Your task to perform on an android device: find snoozed emails in the gmail app Image 0: 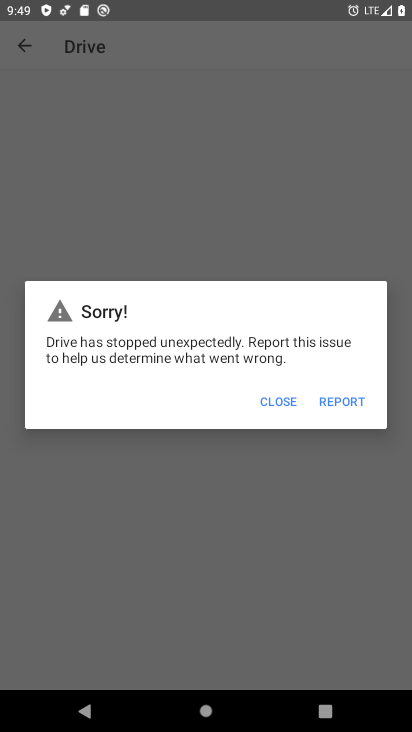
Step 0: press home button
Your task to perform on an android device: find snoozed emails in the gmail app Image 1: 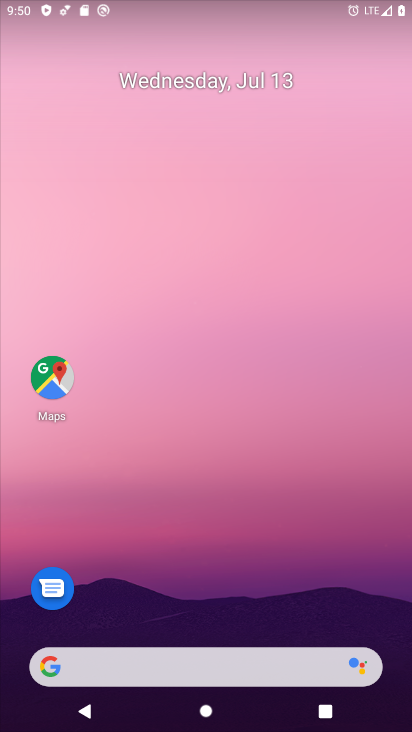
Step 1: drag from (166, 702) to (147, 4)
Your task to perform on an android device: find snoozed emails in the gmail app Image 2: 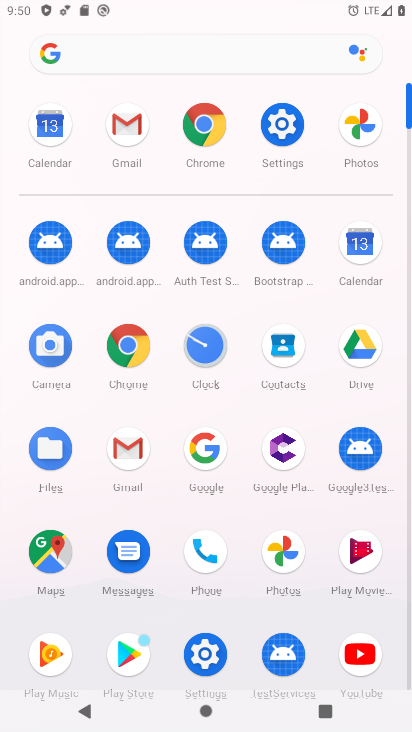
Step 2: click (116, 145)
Your task to perform on an android device: find snoozed emails in the gmail app Image 3: 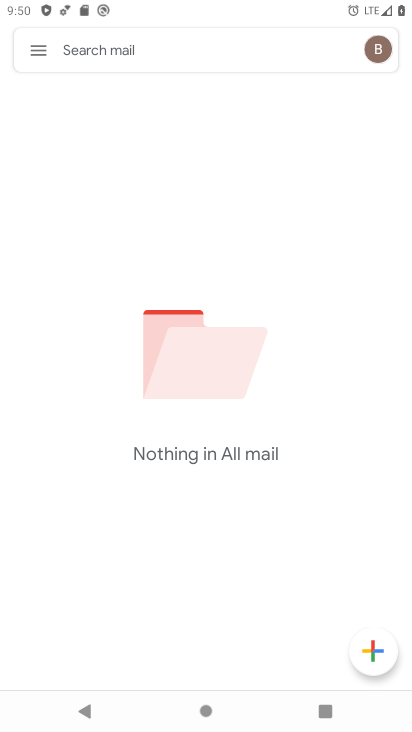
Step 3: click (45, 49)
Your task to perform on an android device: find snoozed emails in the gmail app Image 4: 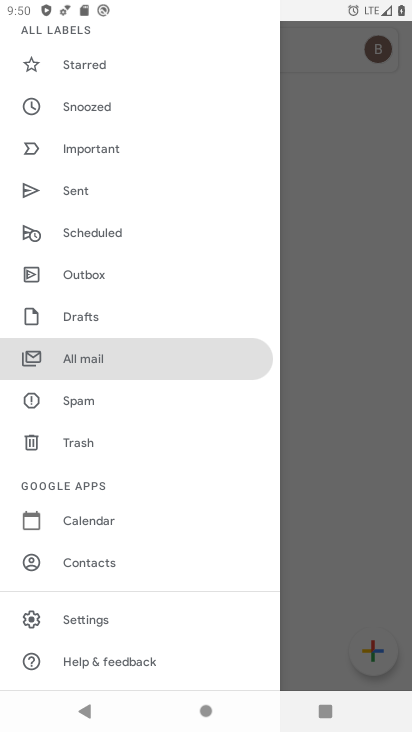
Step 4: click (116, 105)
Your task to perform on an android device: find snoozed emails in the gmail app Image 5: 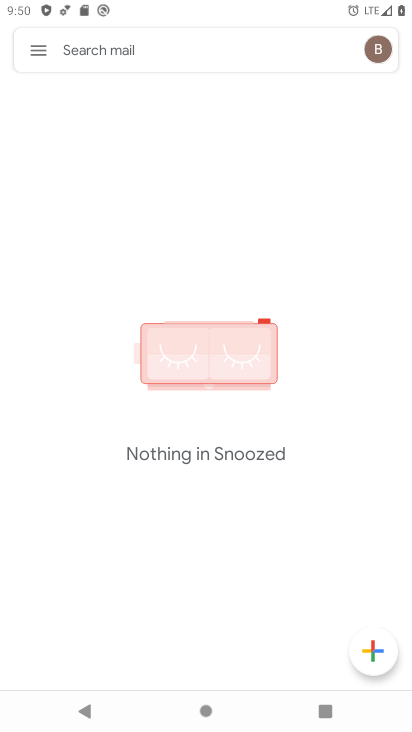
Step 5: task complete